Your task to perform on an android device: change the clock display to show seconds Image 0: 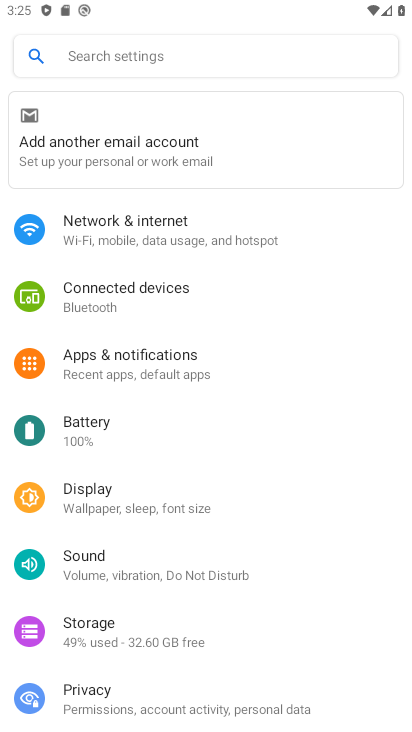
Step 0: press home button
Your task to perform on an android device: change the clock display to show seconds Image 1: 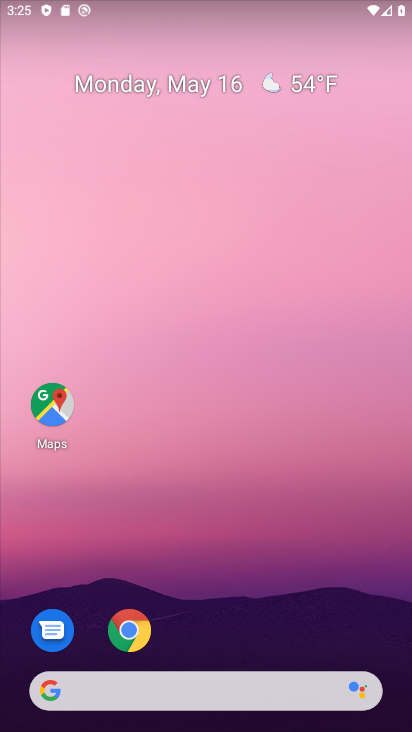
Step 1: drag from (223, 649) to (194, 122)
Your task to perform on an android device: change the clock display to show seconds Image 2: 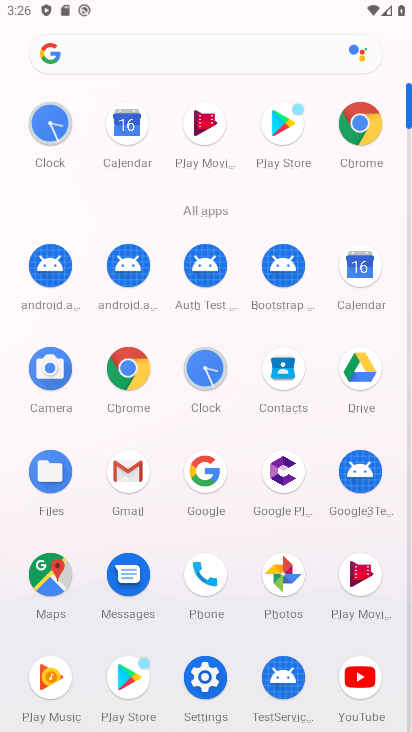
Step 2: click (204, 387)
Your task to perform on an android device: change the clock display to show seconds Image 3: 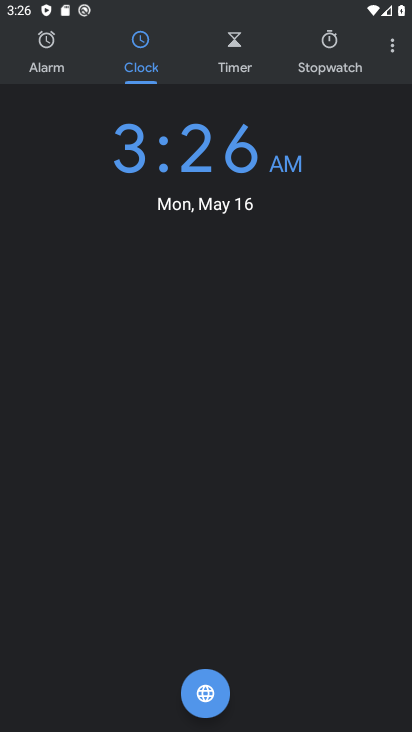
Step 3: click (400, 58)
Your task to perform on an android device: change the clock display to show seconds Image 4: 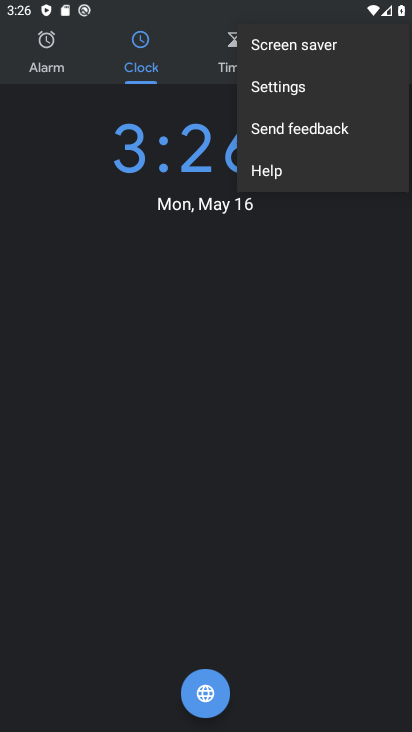
Step 4: click (379, 84)
Your task to perform on an android device: change the clock display to show seconds Image 5: 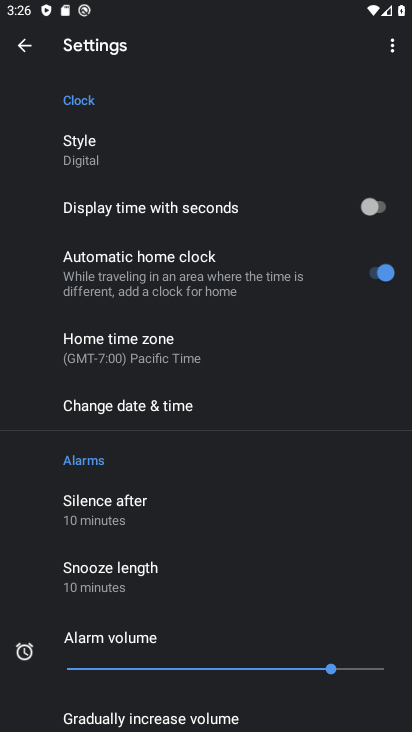
Step 5: click (376, 221)
Your task to perform on an android device: change the clock display to show seconds Image 6: 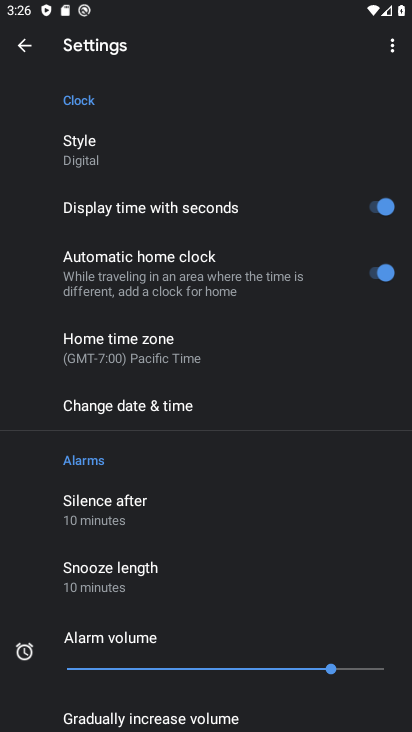
Step 6: task complete